Your task to perform on an android device: Open network settings Image 0: 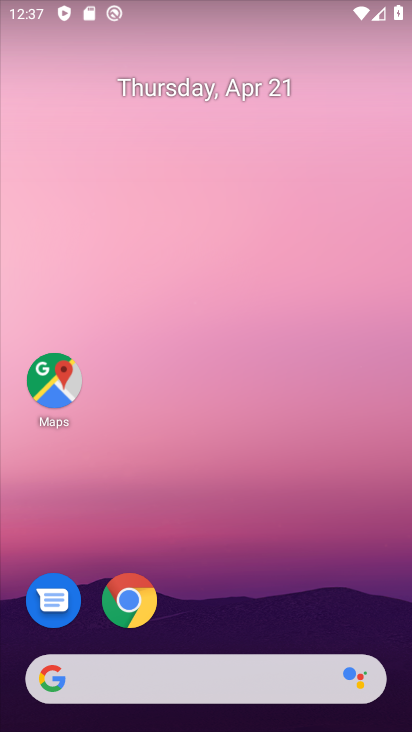
Step 0: drag from (372, 620) to (330, 208)
Your task to perform on an android device: Open network settings Image 1: 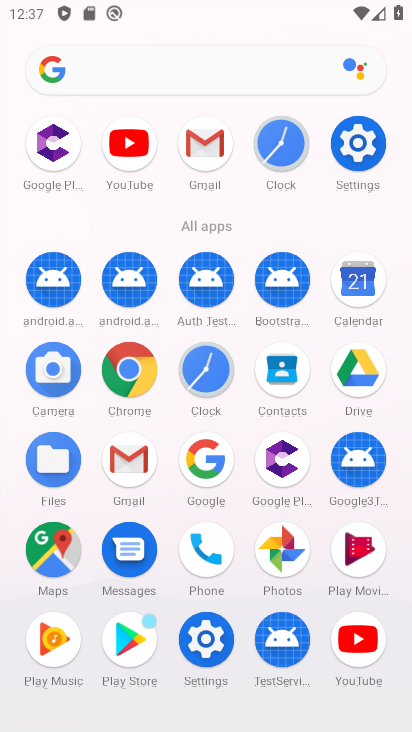
Step 1: click (204, 636)
Your task to perform on an android device: Open network settings Image 2: 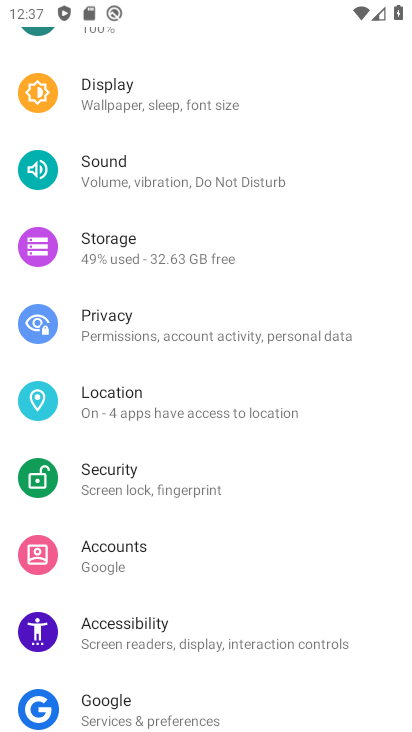
Step 2: drag from (326, 202) to (323, 416)
Your task to perform on an android device: Open network settings Image 3: 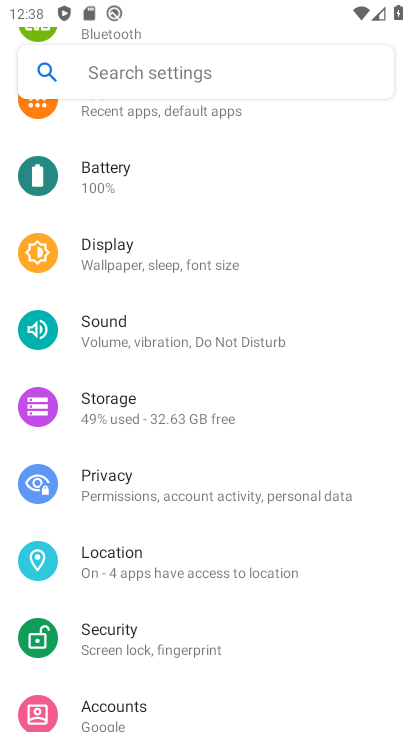
Step 3: drag from (309, 284) to (299, 509)
Your task to perform on an android device: Open network settings Image 4: 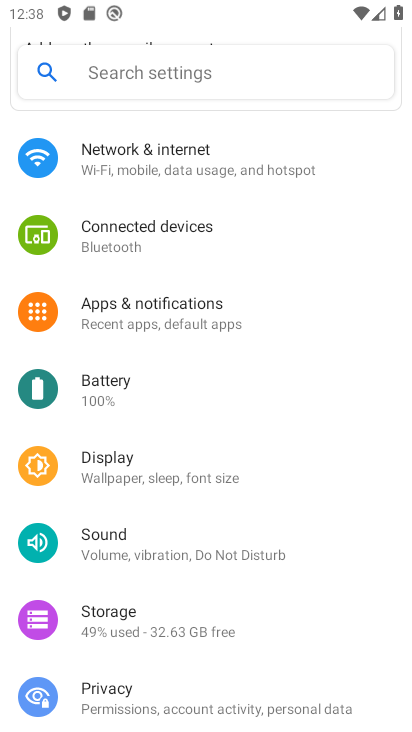
Step 4: click (129, 154)
Your task to perform on an android device: Open network settings Image 5: 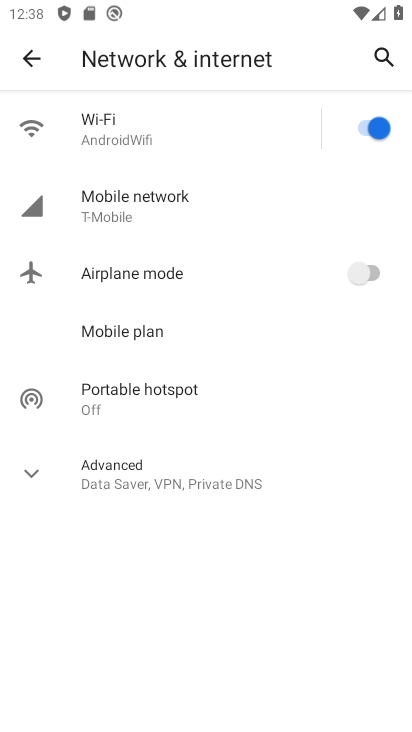
Step 5: click (26, 471)
Your task to perform on an android device: Open network settings Image 6: 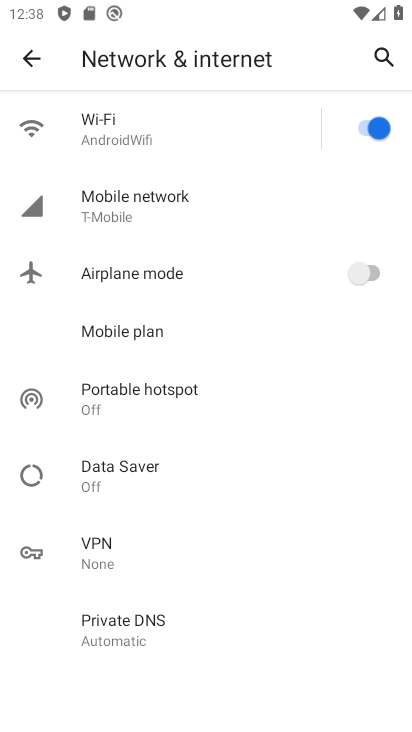
Step 6: drag from (210, 553) to (245, 339)
Your task to perform on an android device: Open network settings Image 7: 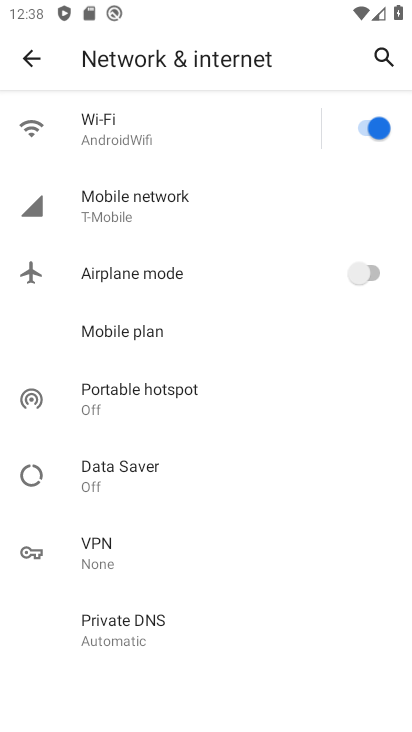
Step 7: click (116, 208)
Your task to perform on an android device: Open network settings Image 8: 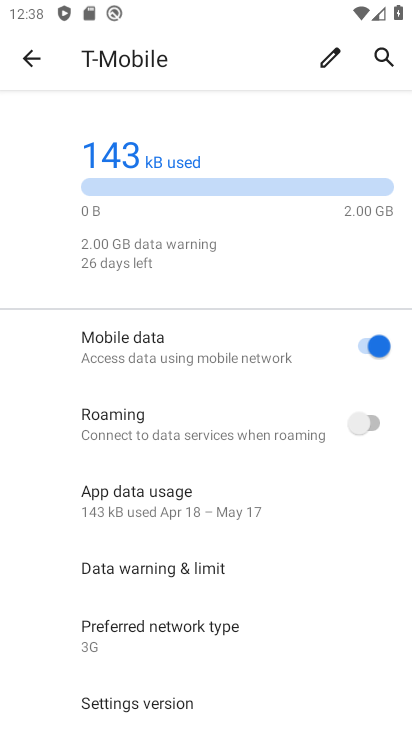
Step 8: task complete